Your task to perform on an android device: What's the news this evening? Image 0: 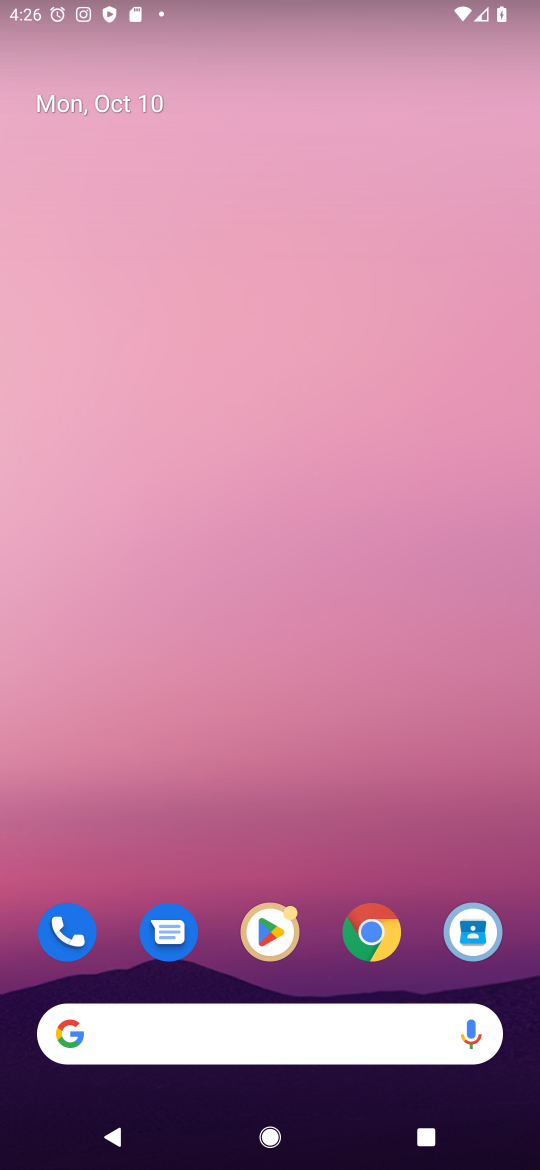
Step 0: press home button
Your task to perform on an android device: What's the news this evening? Image 1: 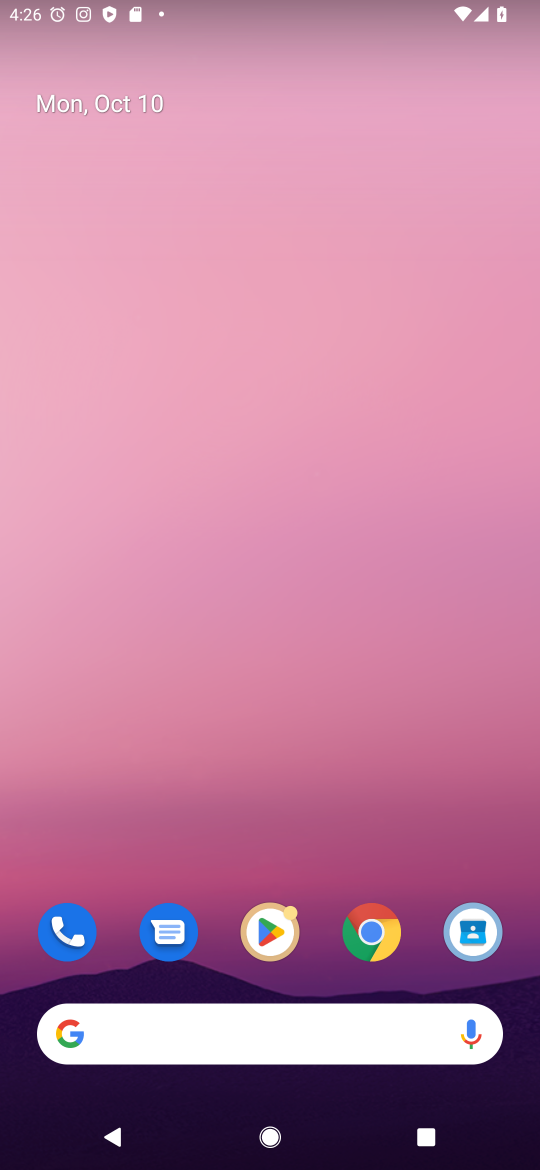
Step 1: click (325, 1048)
Your task to perform on an android device: What's the news this evening? Image 2: 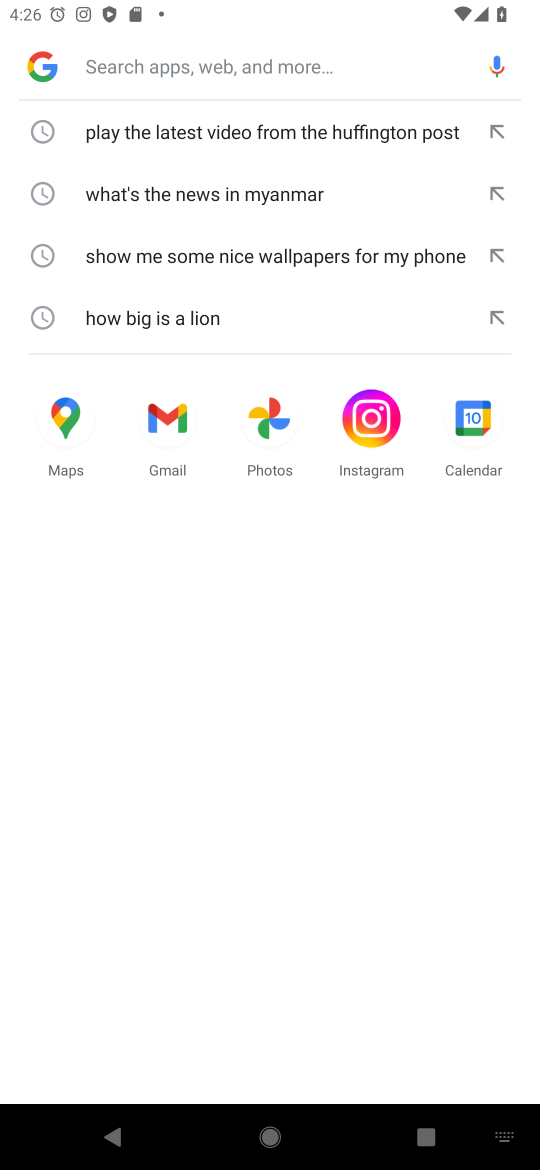
Step 2: press enter
Your task to perform on an android device: What's the news this evening? Image 3: 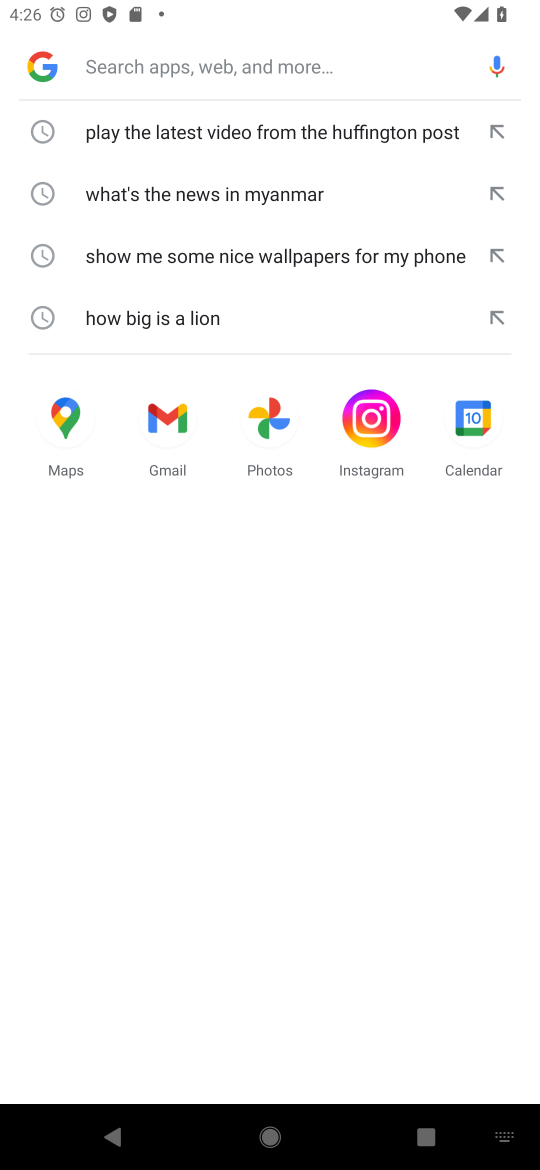
Step 3: type "What's the news this evening"
Your task to perform on an android device: What's the news this evening? Image 4: 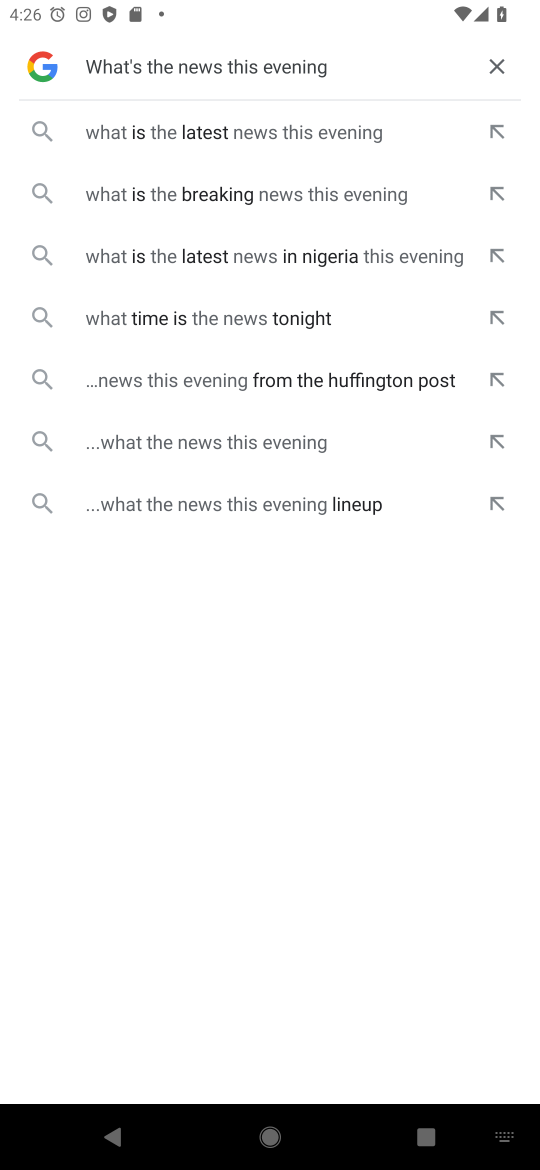
Step 4: press enter
Your task to perform on an android device: What's the news this evening? Image 5: 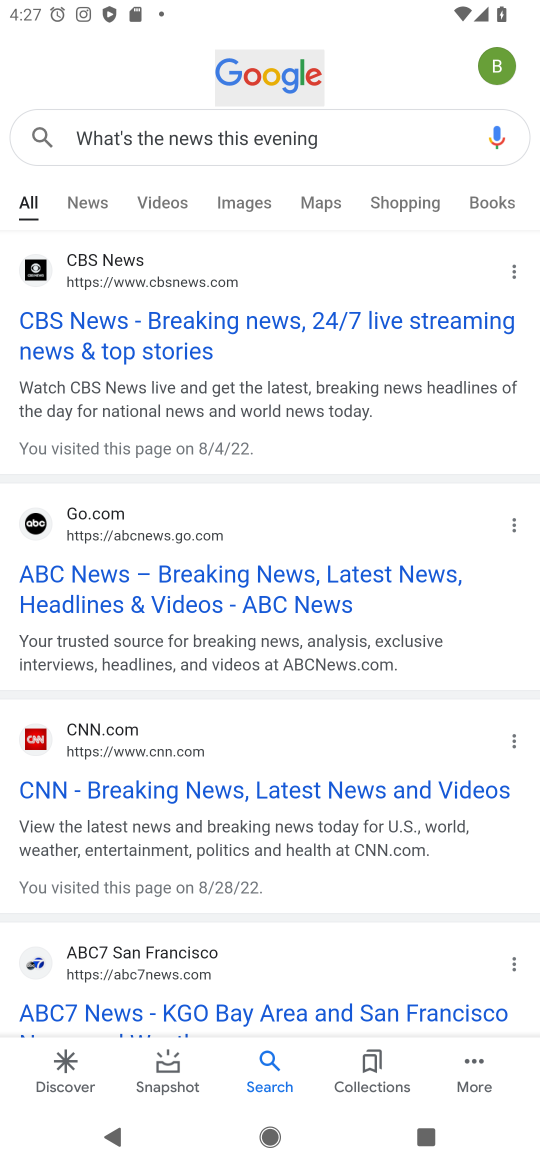
Step 5: click (252, 324)
Your task to perform on an android device: What's the news this evening? Image 6: 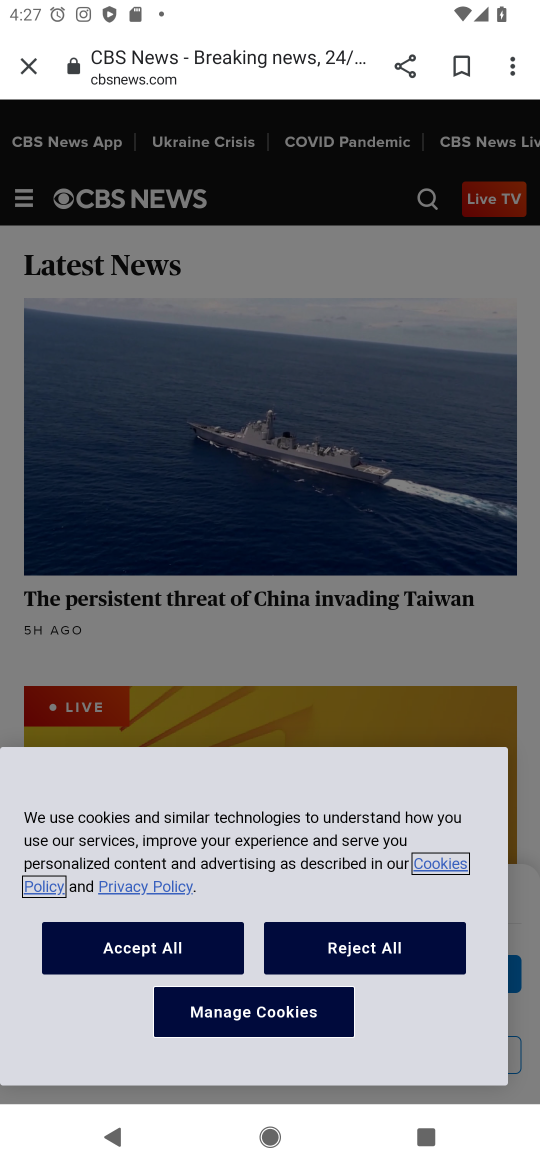
Step 6: click (172, 945)
Your task to perform on an android device: What's the news this evening? Image 7: 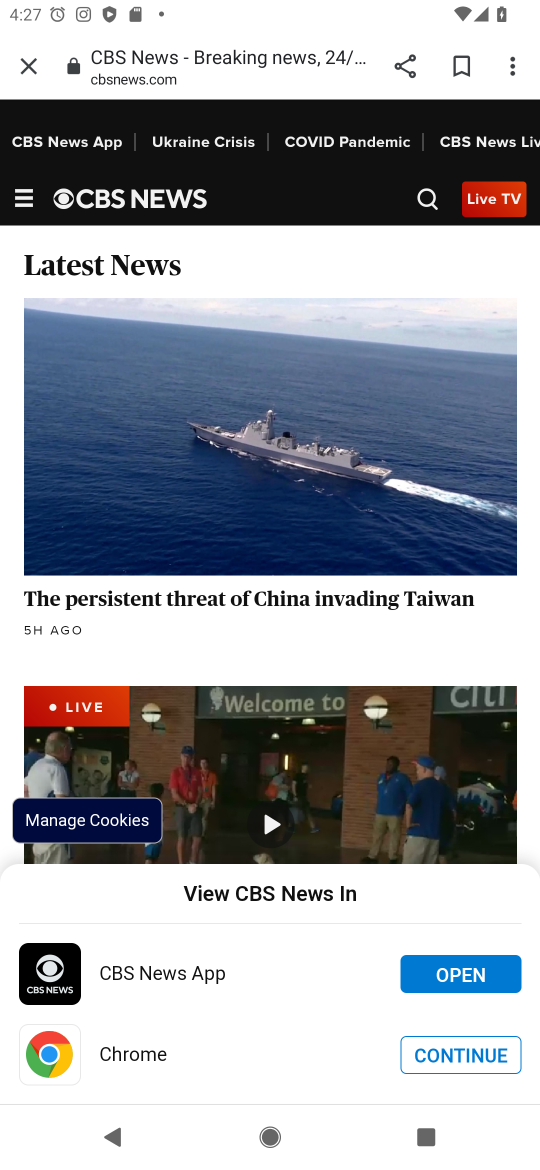
Step 7: task complete